Your task to perform on an android device: turn off sleep mode Image 0: 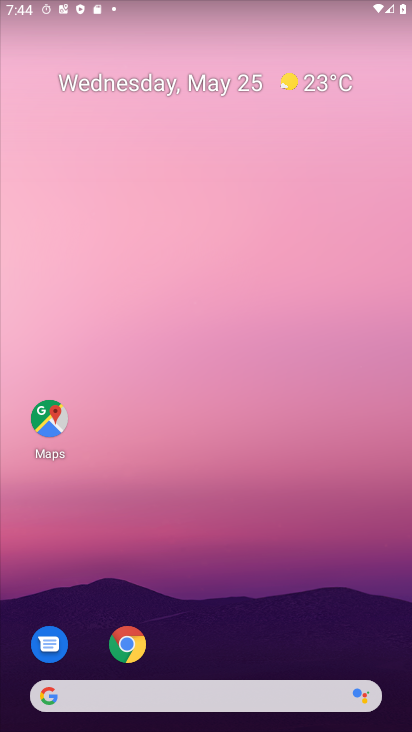
Step 0: drag from (283, 708) to (266, 187)
Your task to perform on an android device: turn off sleep mode Image 1: 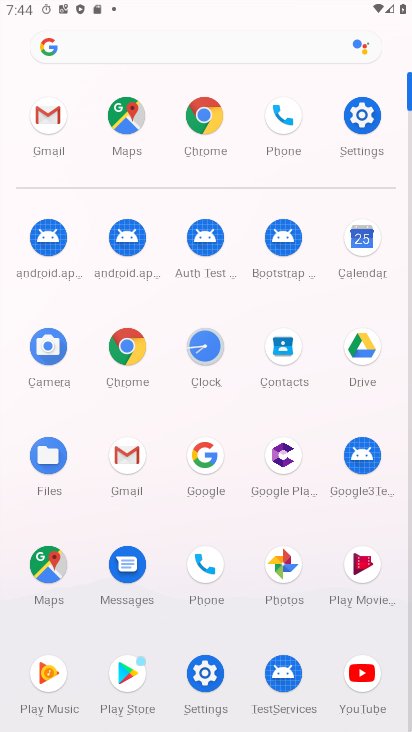
Step 1: click (355, 125)
Your task to perform on an android device: turn off sleep mode Image 2: 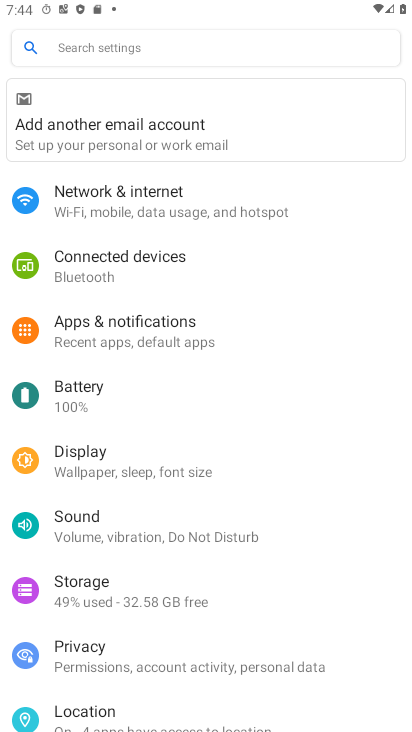
Step 2: click (98, 53)
Your task to perform on an android device: turn off sleep mode Image 3: 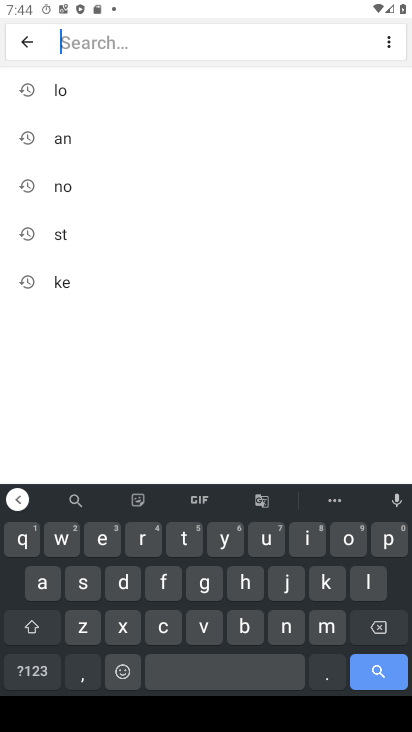
Step 3: click (81, 583)
Your task to perform on an android device: turn off sleep mode Image 4: 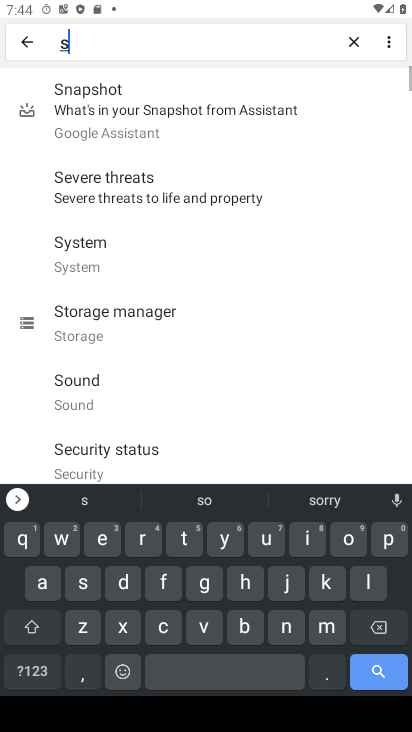
Step 4: click (369, 580)
Your task to perform on an android device: turn off sleep mode Image 5: 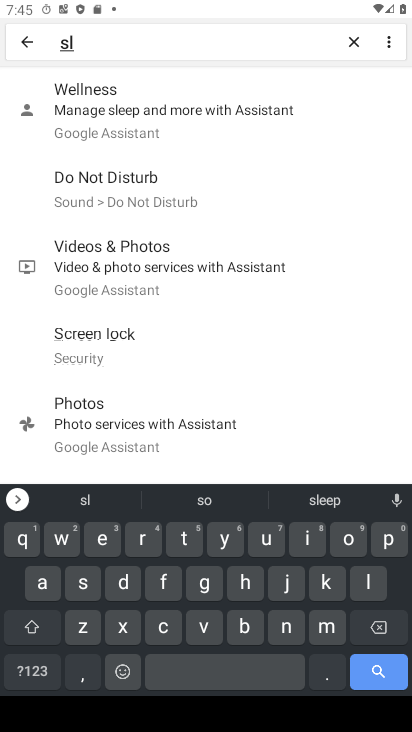
Step 5: click (161, 114)
Your task to perform on an android device: turn off sleep mode Image 6: 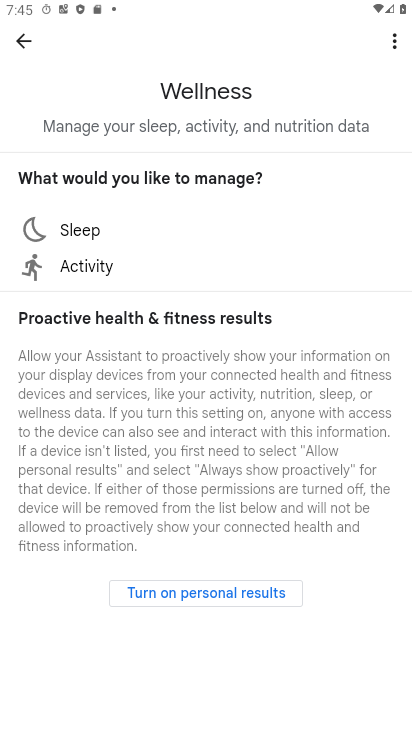
Step 6: click (79, 231)
Your task to perform on an android device: turn off sleep mode Image 7: 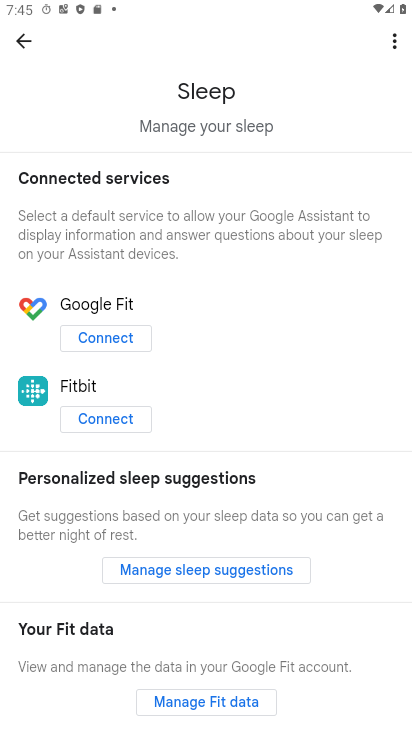
Step 7: task complete